Your task to perform on an android device: Open calendar and show me the third week of next month Image 0: 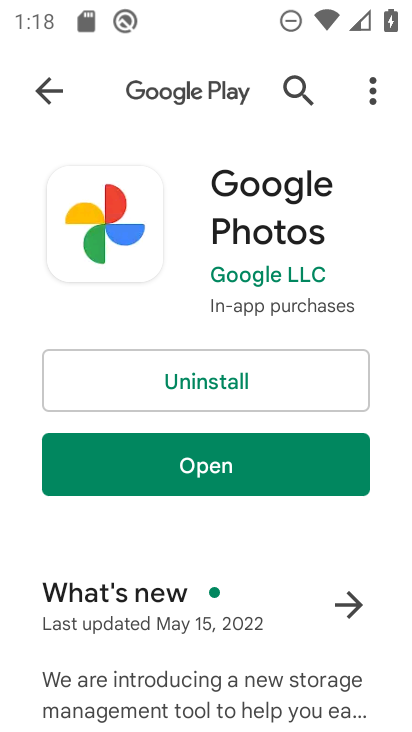
Step 0: press home button
Your task to perform on an android device: Open calendar and show me the third week of next month Image 1: 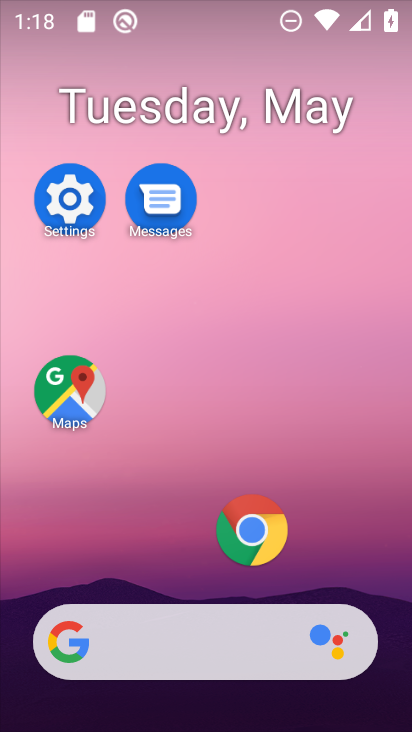
Step 1: drag from (188, 541) to (239, 245)
Your task to perform on an android device: Open calendar and show me the third week of next month Image 2: 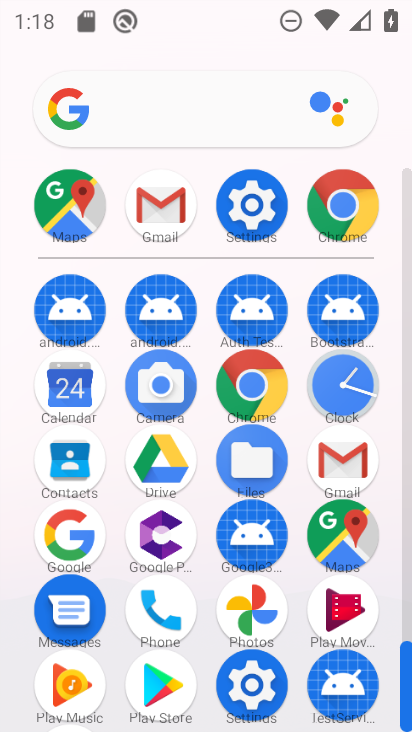
Step 2: click (70, 403)
Your task to perform on an android device: Open calendar and show me the third week of next month Image 3: 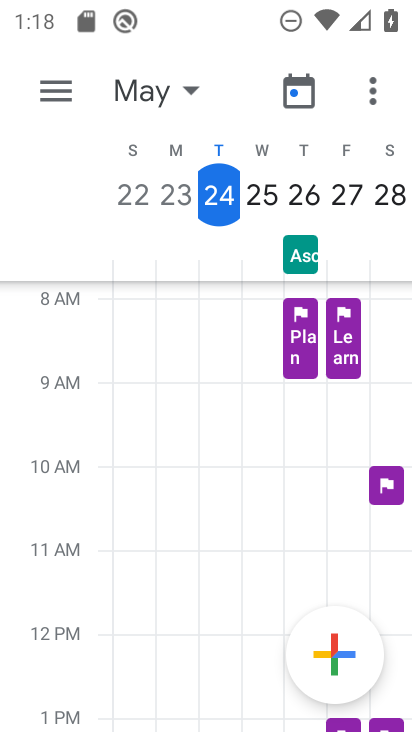
Step 3: click (182, 81)
Your task to perform on an android device: Open calendar and show me the third week of next month Image 4: 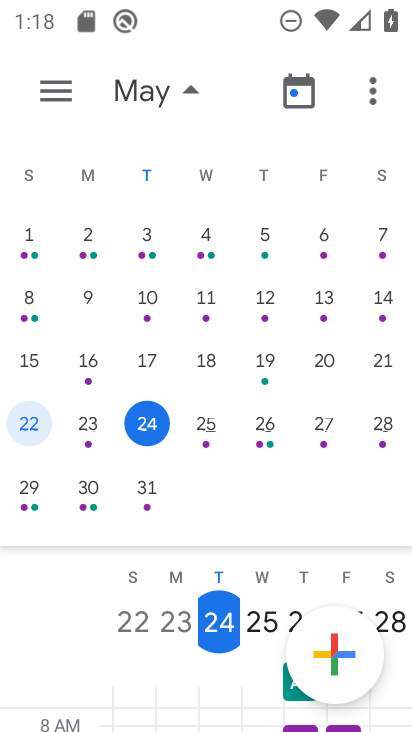
Step 4: drag from (312, 342) to (41, 346)
Your task to perform on an android device: Open calendar and show me the third week of next month Image 5: 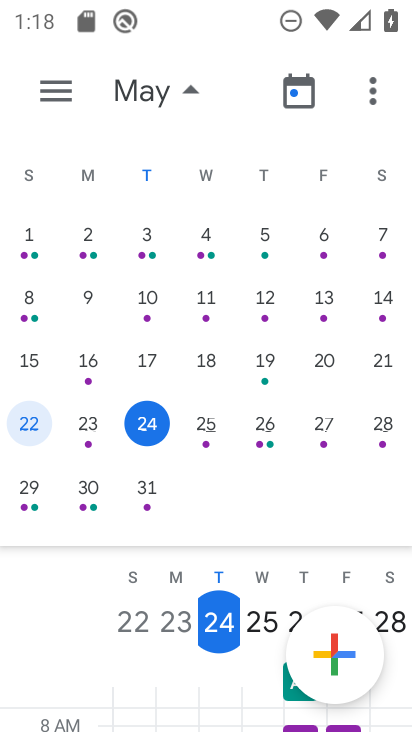
Step 5: drag from (339, 341) to (2, 361)
Your task to perform on an android device: Open calendar and show me the third week of next month Image 6: 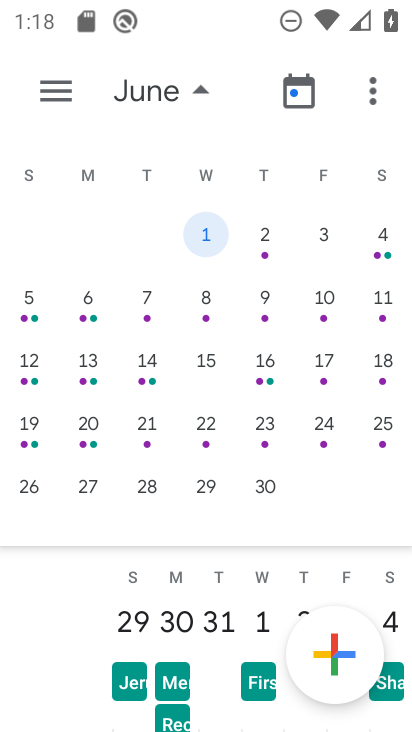
Step 6: click (29, 372)
Your task to perform on an android device: Open calendar and show me the third week of next month Image 7: 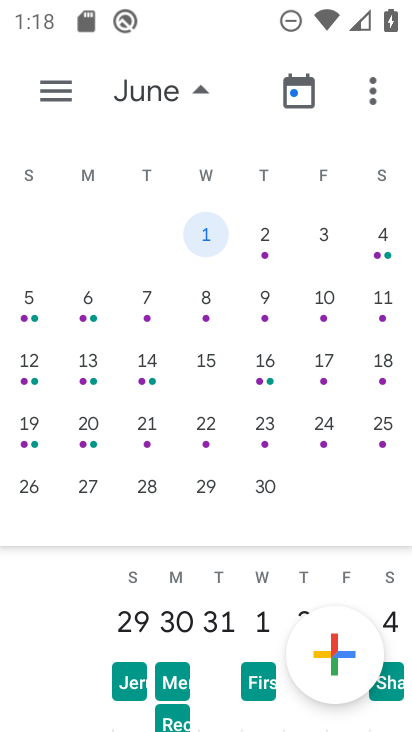
Step 7: click (37, 362)
Your task to perform on an android device: Open calendar and show me the third week of next month Image 8: 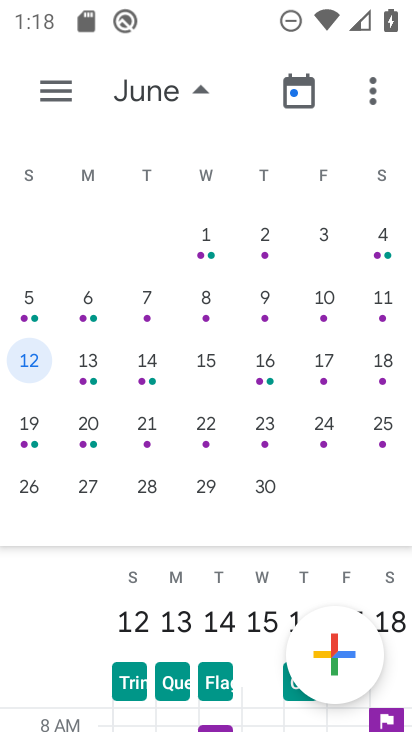
Step 8: click (202, 88)
Your task to perform on an android device: Open calendar and show me the third week of next month Image 9: 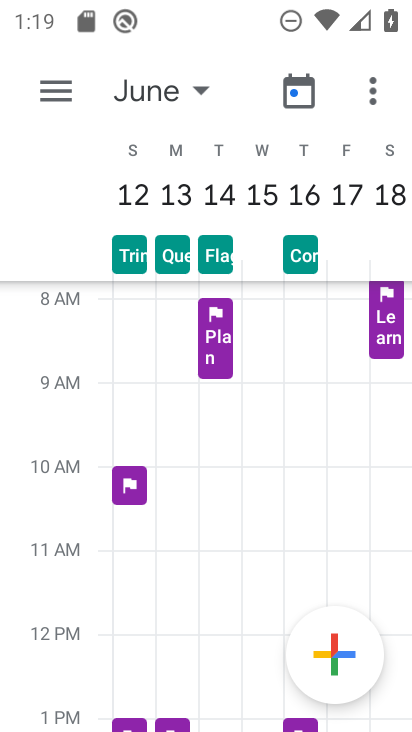
Step 9: task complete